Your task to perform on an android device: Go to internet settings Image 0: 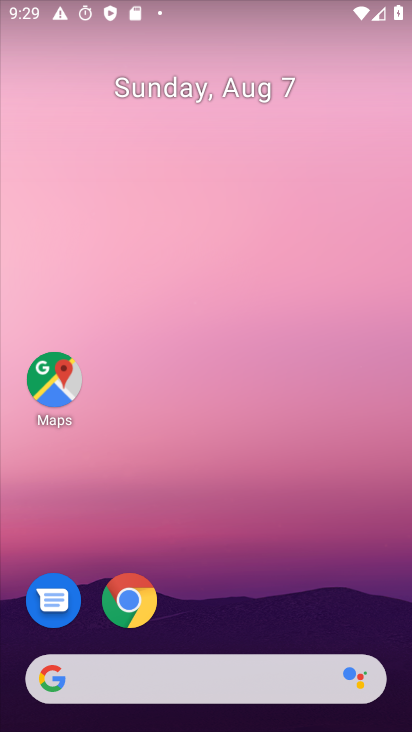
Step 0: drag from (222, 531) to (382, 627)
Your task to perform on an android device: Go to internet settings Image 1: 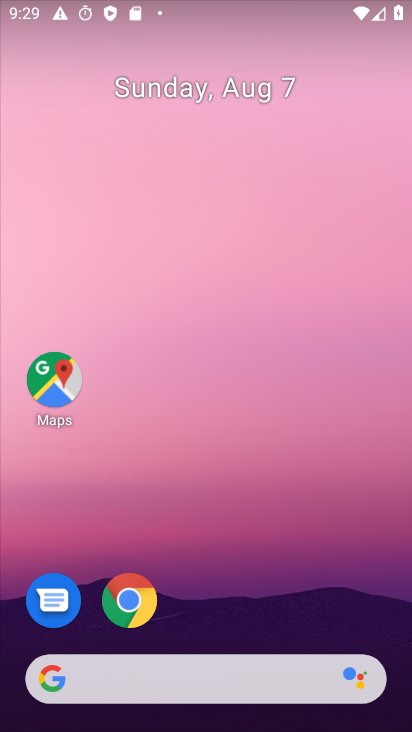
Step 1: drag from (255, 585) to (254, 242)
Your task to perform on an android device: Go to internet settings Image 2: 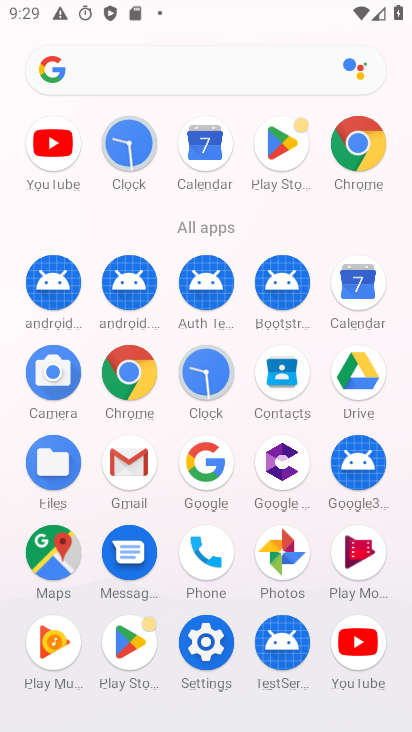
Step 2: click (211, 662)
Your task to perform on an android device: Go to internet settings Image 3: 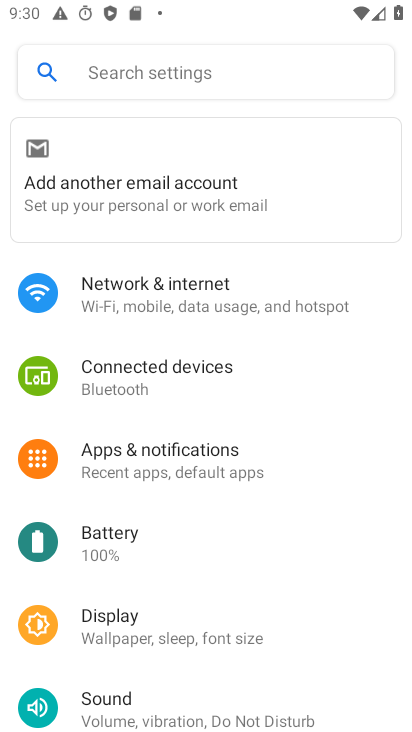
Step 3: click (191, 275)
Your task to perform on an android device: Go to internet settings Image 4: 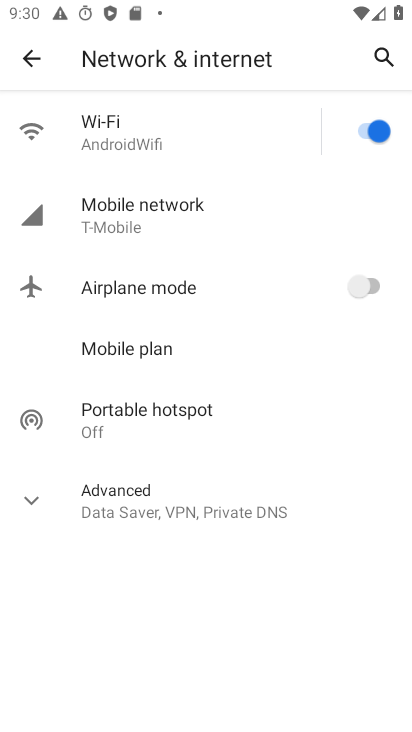
Step 4: click (177, 217)
Your task to perform on an android device: Go to internet settings Image 5: 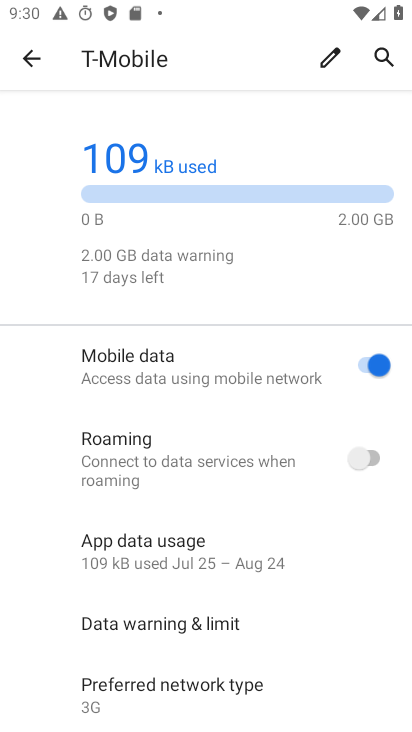
Step 5: click (184, 558)
Your task to perform on an android device: Go to internet settings Image 6: 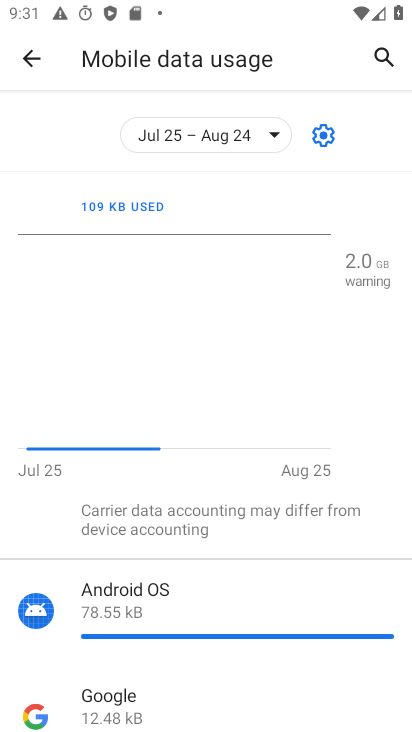
Step 6: task complete